Your task to perform on an android device: open device folders in google photos Image 0: 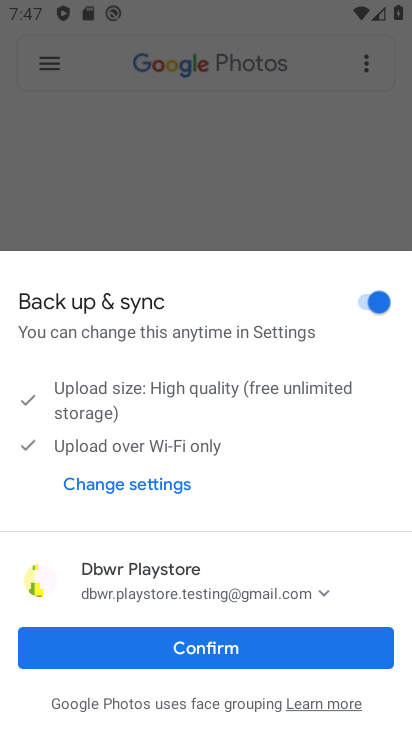
Step 0: click (220, 651)
Your task to perform on an android device: open device folders in google photos Image 1: 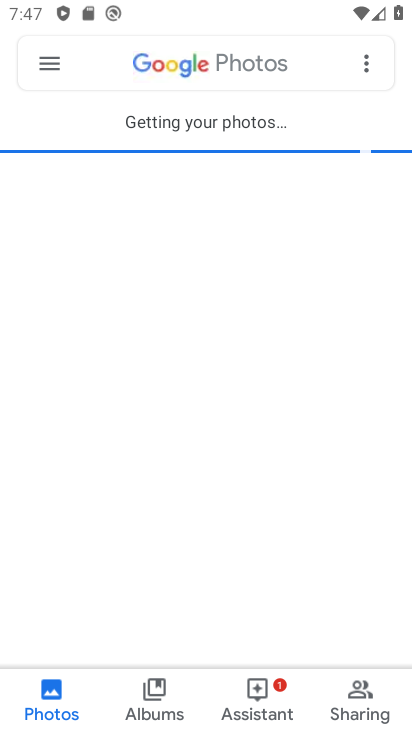
Step 1: click (49, 64)
Your task to perform on an android device: open device folders in google photos Image 2: 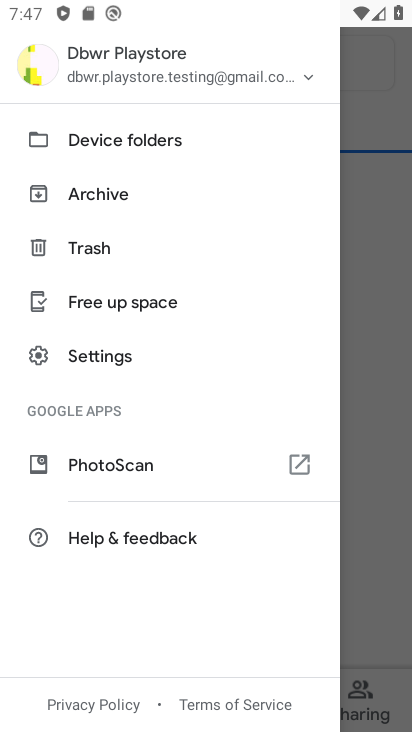
Step 2: click (116, 136)
Your task to perform on an android device: open device folders in google photos Image 3: 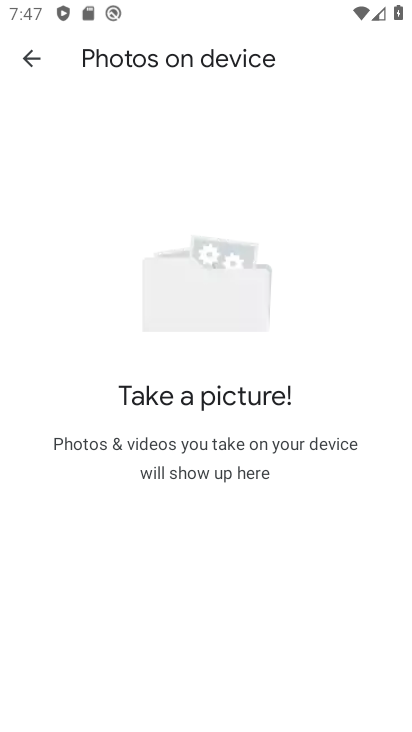
Step 3: task complete